Your task to perform on an android device: open chrome and create a bookmark for the current page Image 0: 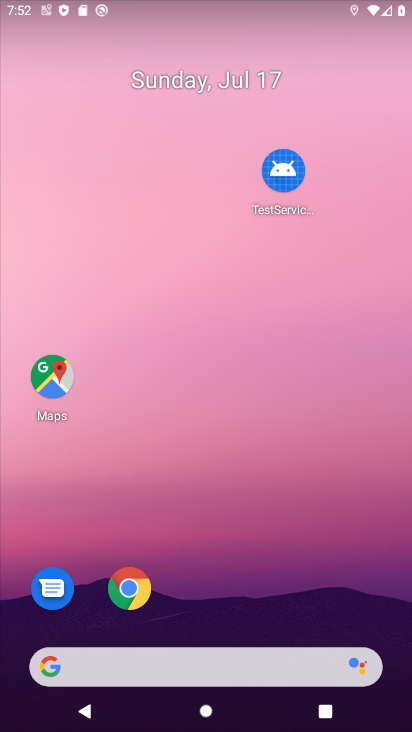
Step 0: drag from (202, 661) to (237, 90)
Your task to perform on an android device: open chrome and create a bookmark for the current page Image 1: 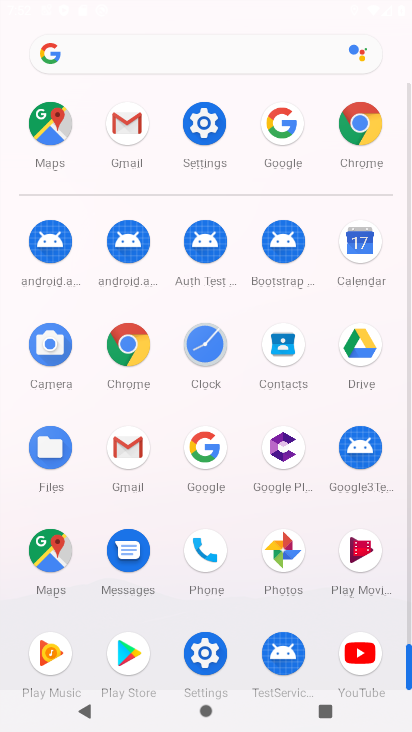
Step 1: click (364, 157)
Your task to perform on an android device: open chrome and create a bookmark for the current page Image 2: 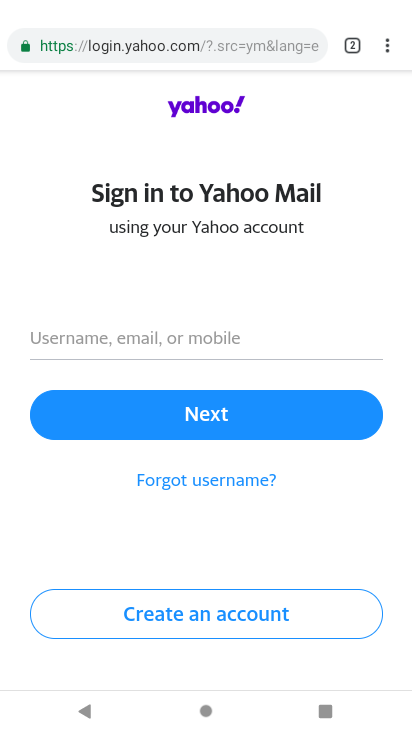
Step 2: click (390, 58)
Your task to perform on an android device: open chrome and create a bookmark for the current page Image 3: 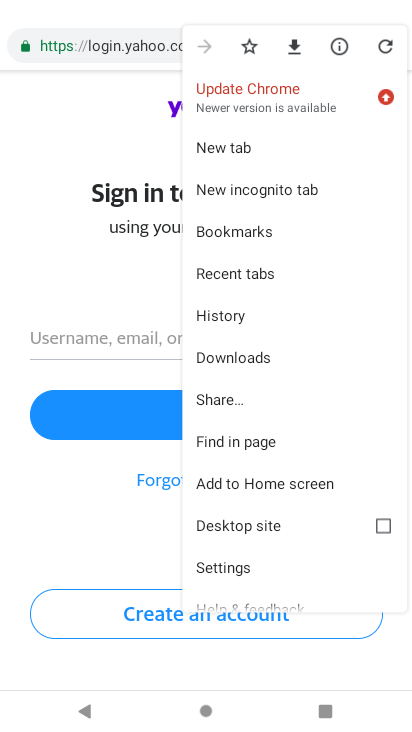
Step 3: click (256, 51)
Your task to perform on an android device: open chrome and create a bookmark for the current page Image 4: 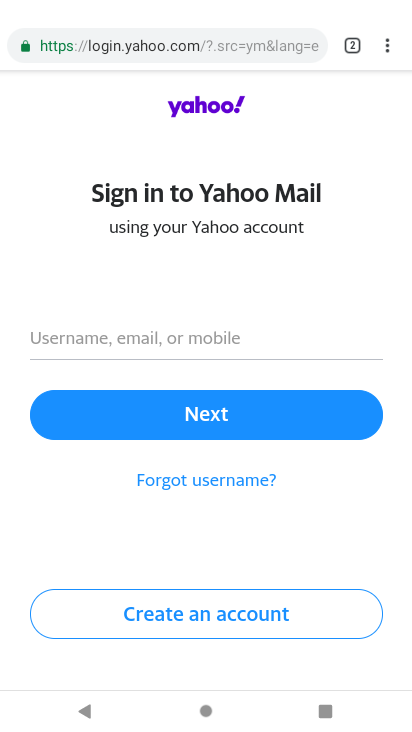
Step 4: task complete